Your task to perform on an android device: Search for hotels in San Diego Image 0: 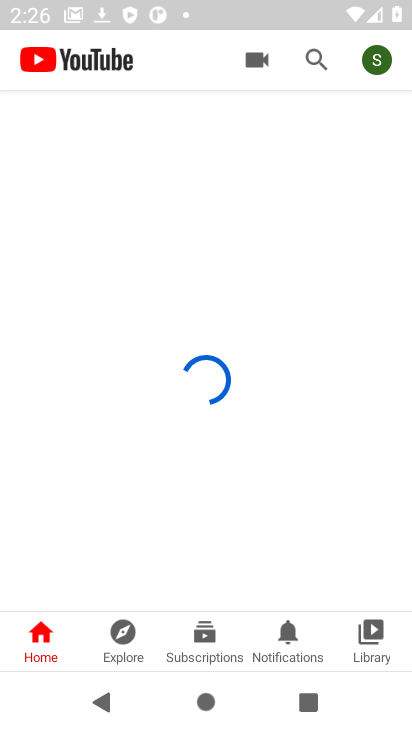
Step 0: press home button
Your task to perform on an android device: Search for hotels in San Diego Image 1: 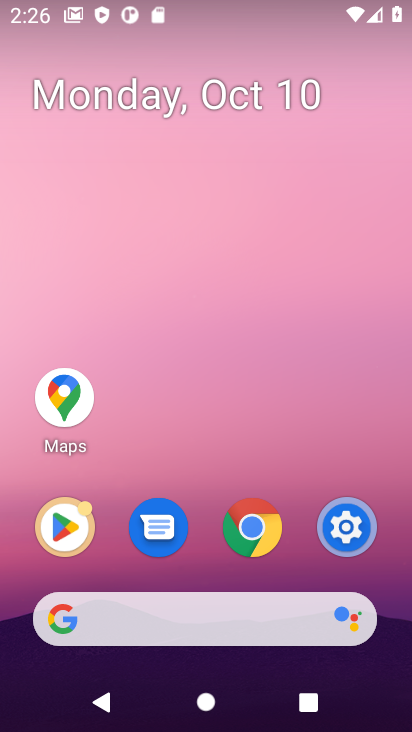
Step 1: click (235, 633)
Your task to perform on an android device: Search for hotels in San Diego Image 2: 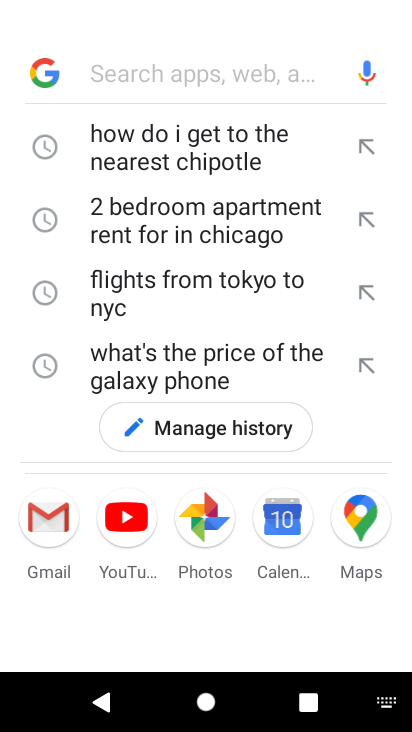
Step 2: type " hotels in San Diego"
Your task to perform on an android device: Search for hotels in San Diego Image 3: 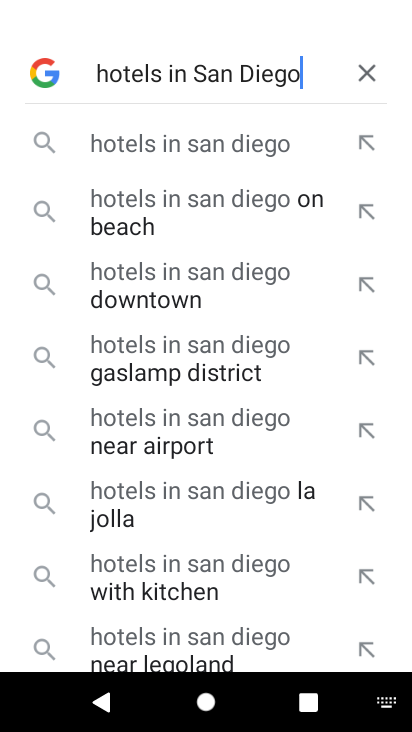
Step 3: press enter
Your task to perform on an android device: Search for hotels in San Diego Image 4: 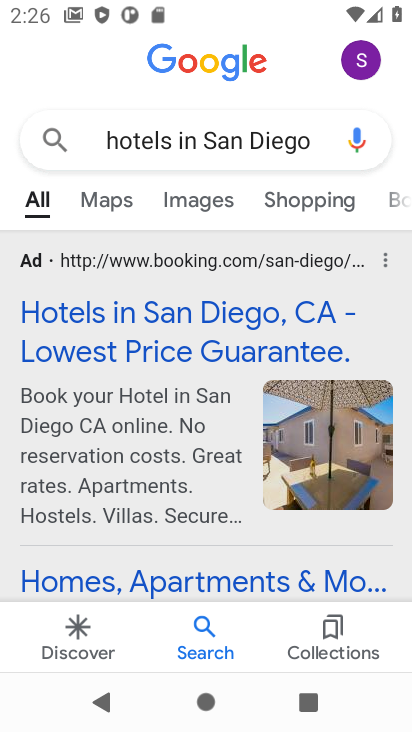
Step 4: click (207, 345)
Your task to perform on an android device: Search for hotels in San Diego Image 5: 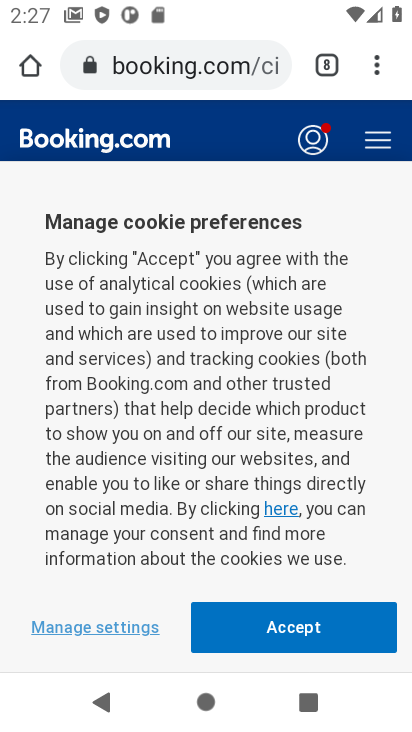
Step 5: click (360, 629)
Your task to perform on an android device: Search for hotels in San Diego Image 6: 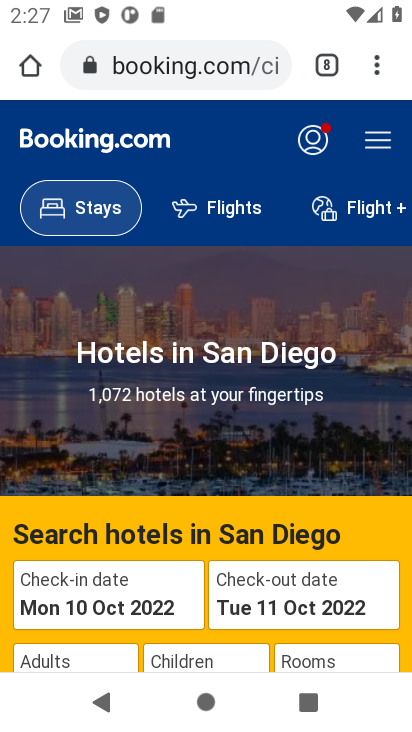
Step 6: drag from (368, 524) to (357, 310)
Your task to perform on an android device: Search for hotels in San Diego Image 7: 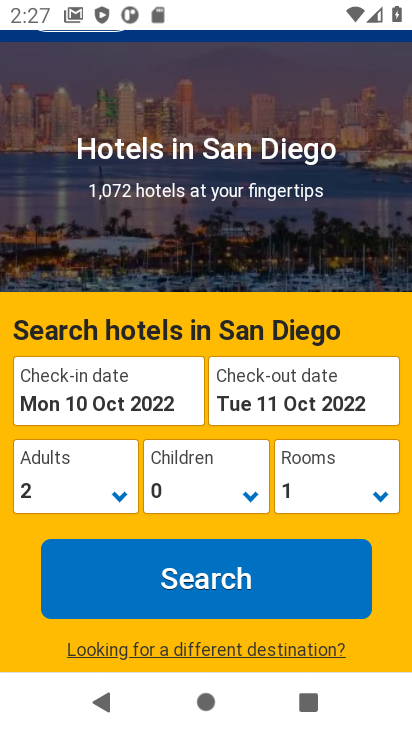
Step 7: click (252, 584)
Your task to perform on an android device: Search for hotels in San Diego Image 8: 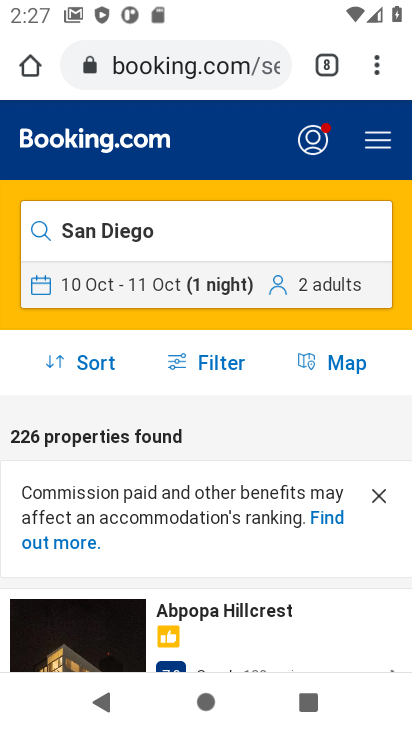
Step 8: task complete